Your task to perform on an android device: Search for seafood restaurants on Google Maps Image 0: 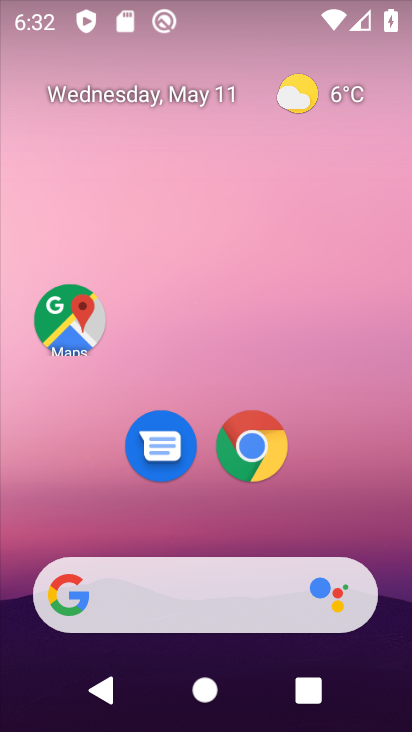
Step 0: click (51, 325)
Your task to perform on an android device: Search for seafood restaurants on Google Maps Image 1: 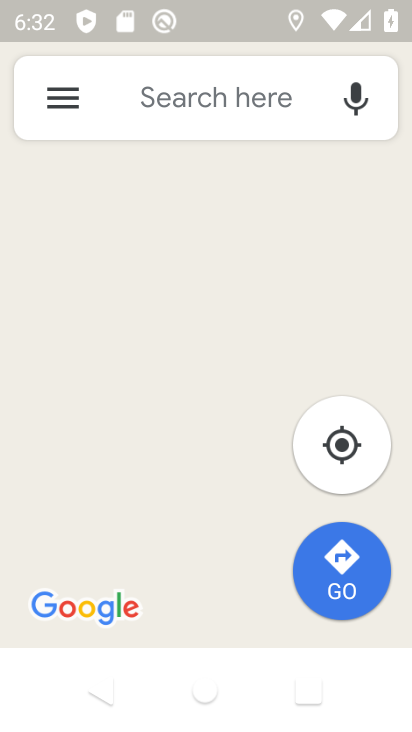
Step 1: click (182, 110)
Your task to perform on an android device: Search for seafood restaurants on Google Maps Image 2: 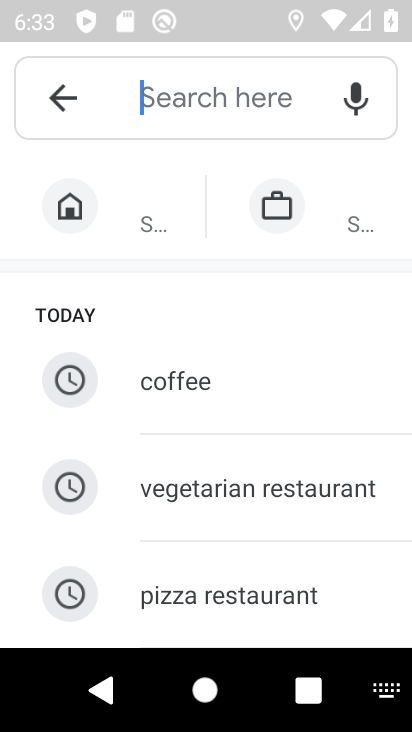
Step 2: type "seafood restaurants"
Your task to perform on an android device: Search for seafood restaurants on Google Maps Image 3: 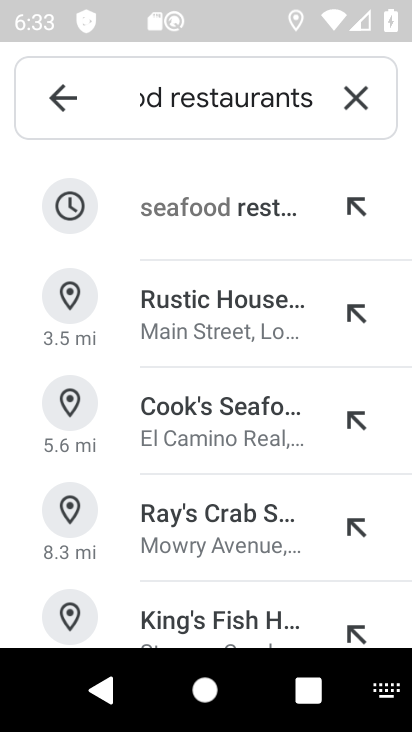
Step 3: click (200, 213)
Your task to perform on an android device: Search for seafood restaurants on Google Maps Image 4: 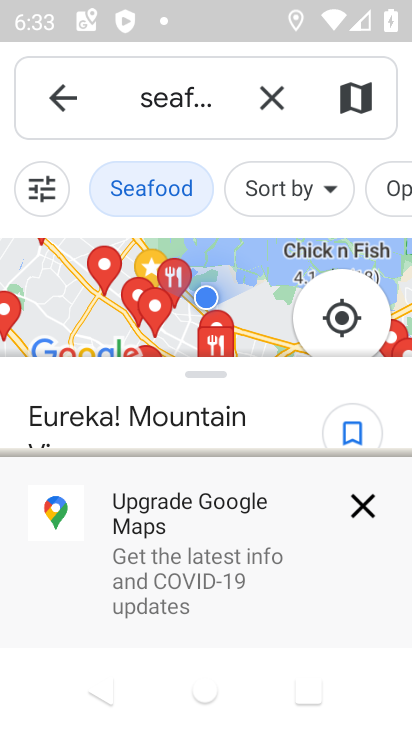
Step 4: task complete